Your task to perform on an android device: Go to Wikipedia Image 0: 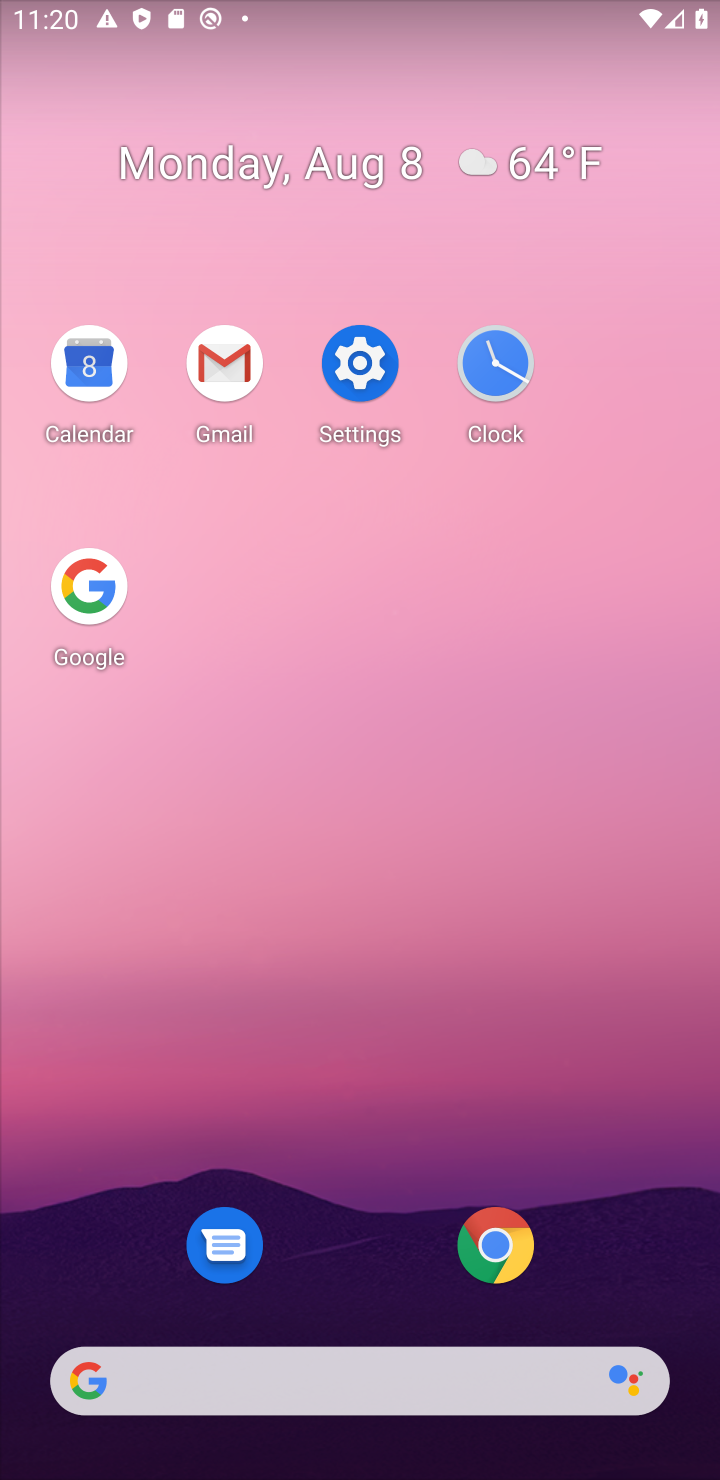
Step 0: click (494, 1241)
Your task to perform on an android device: Go to Wikipedia Image 1: 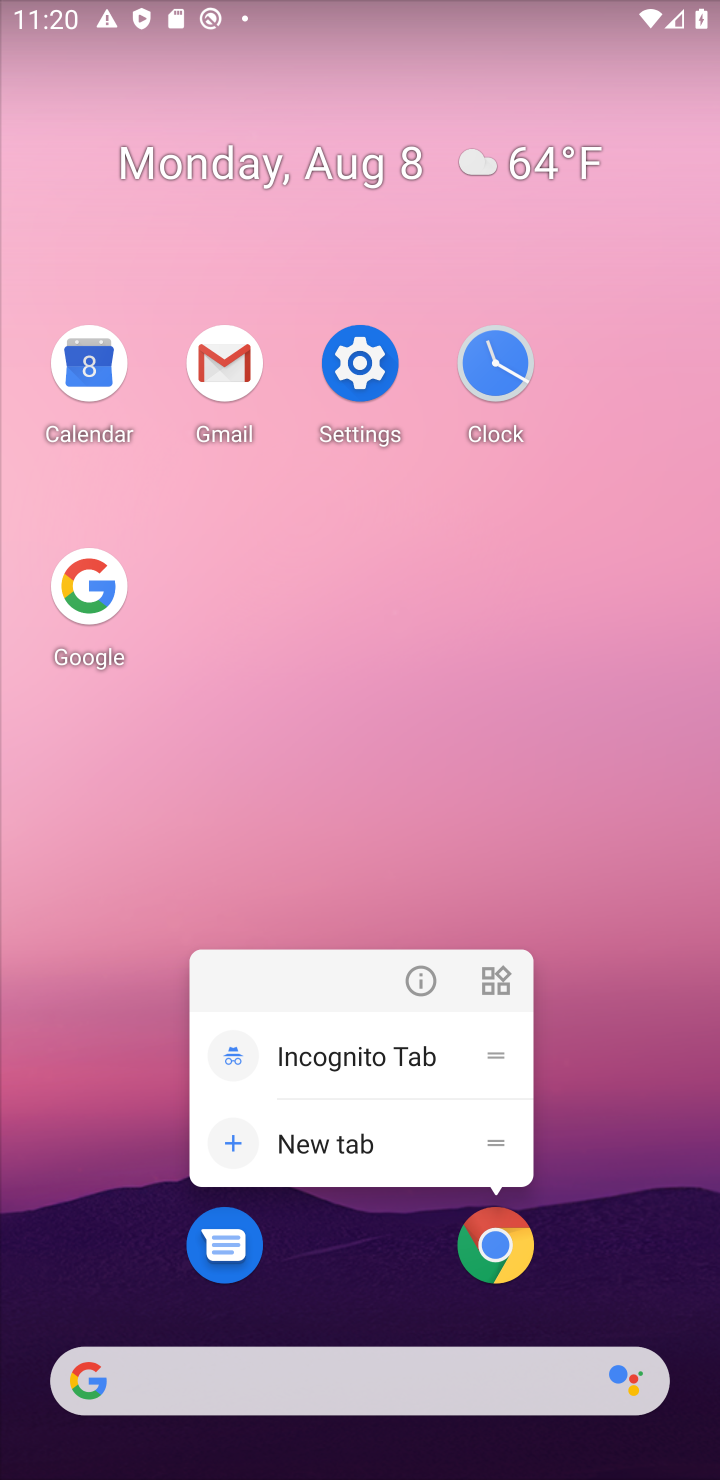
Step 1: click (494, 1241)
Your task to perform on an android device: Go to Wikipedia Image 2: 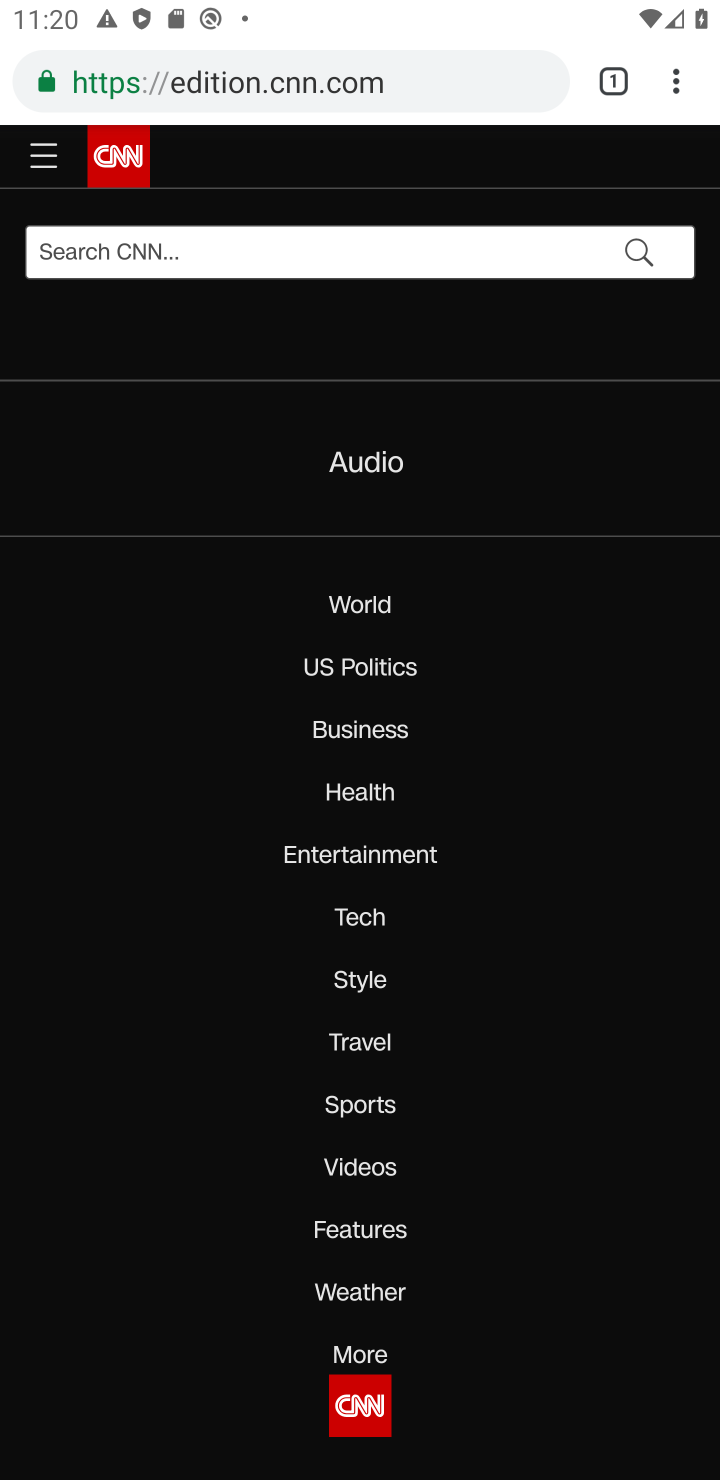
Step 2: click (606, 87)
Your task to perform on an android device: Go to Wikipedia Image 3: 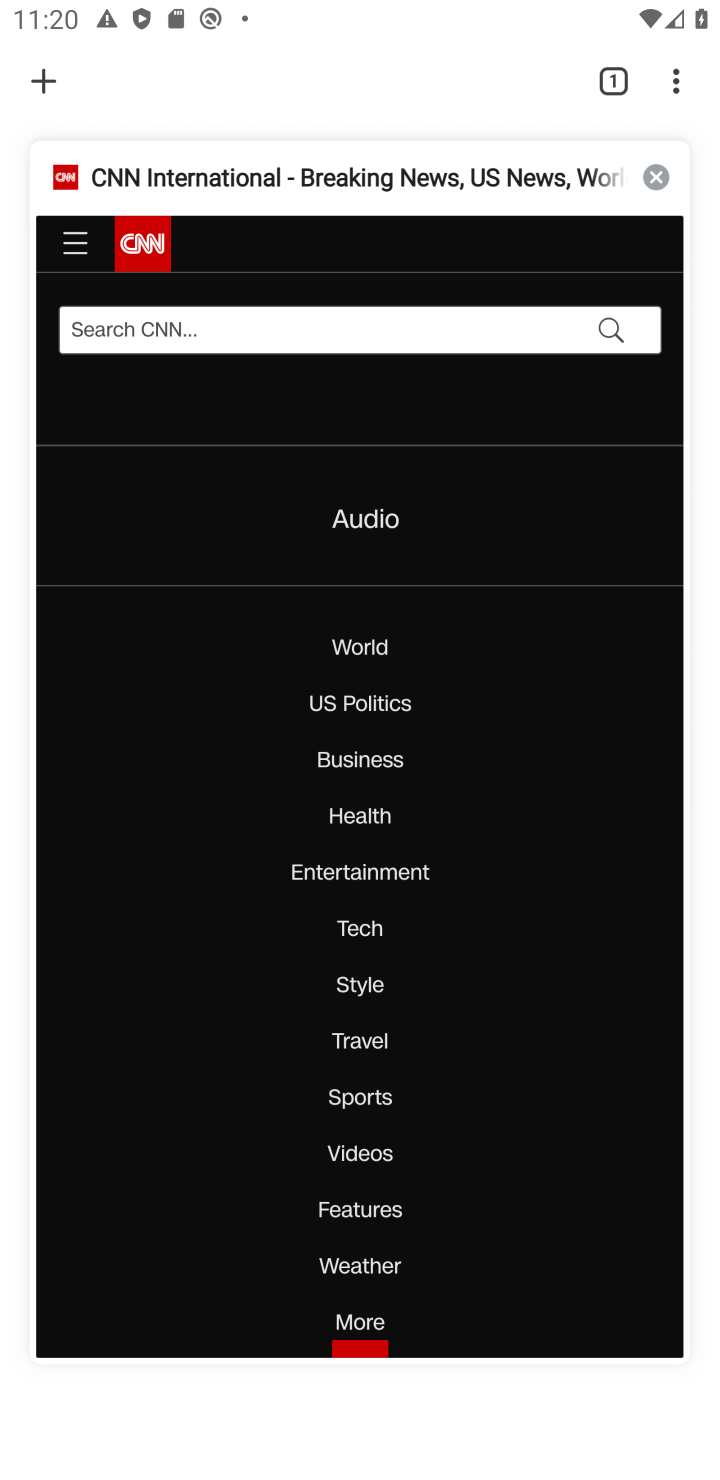
Step 3: click (40, 87)
Your task to perform on an android device: Go to Wikipedia Image 4: 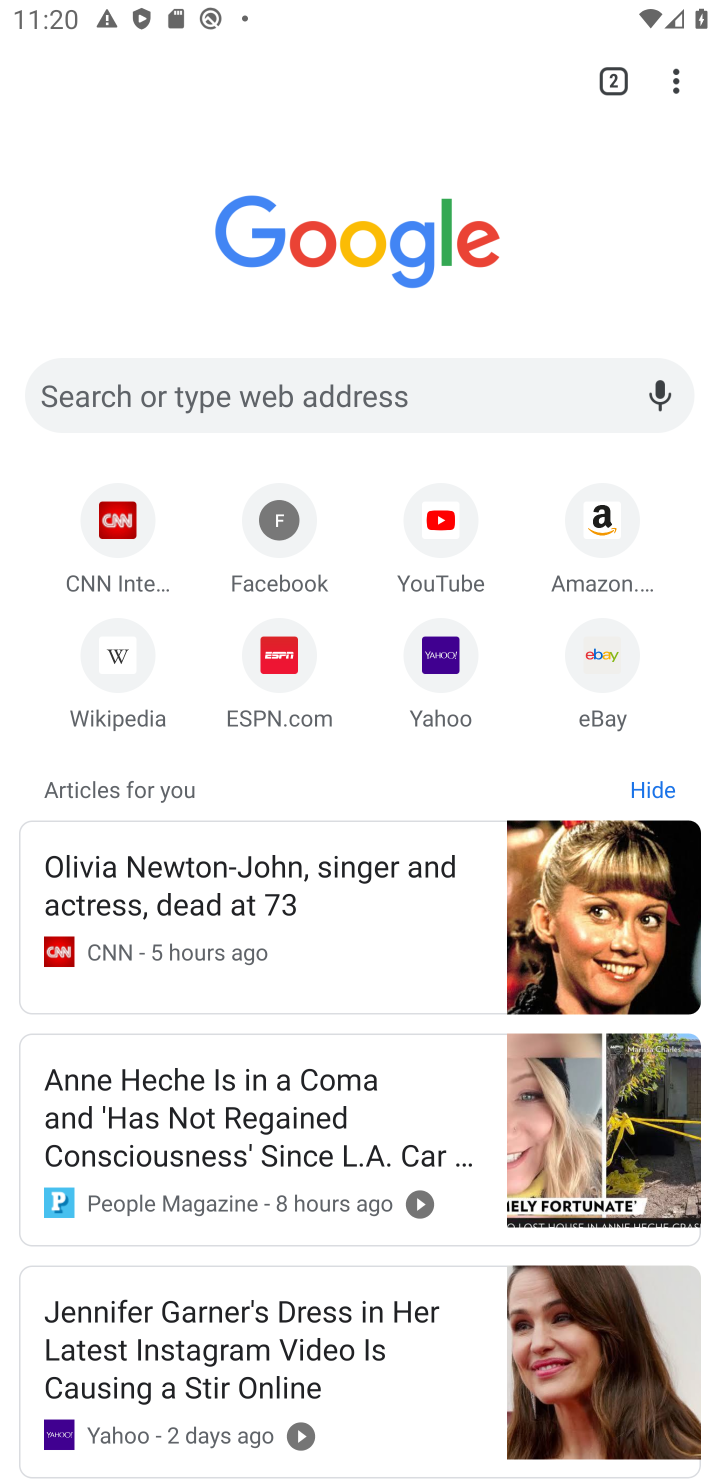
Step 4: click (126, 679)
Your task to perform on an android device: Go to Wikipedia Image 5: 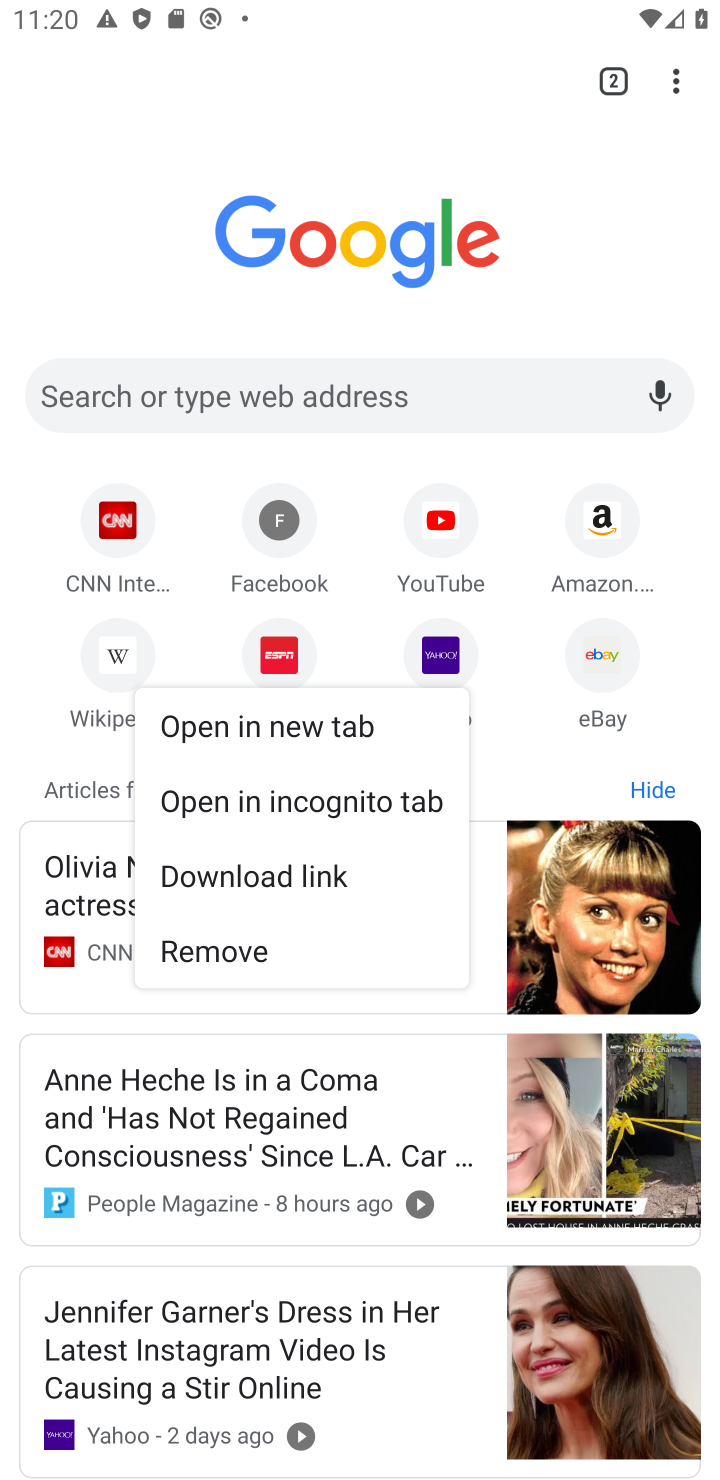
Step 5: click (130, 634)
Your task to perform on an android device: Go to Wikipedia Image 6: 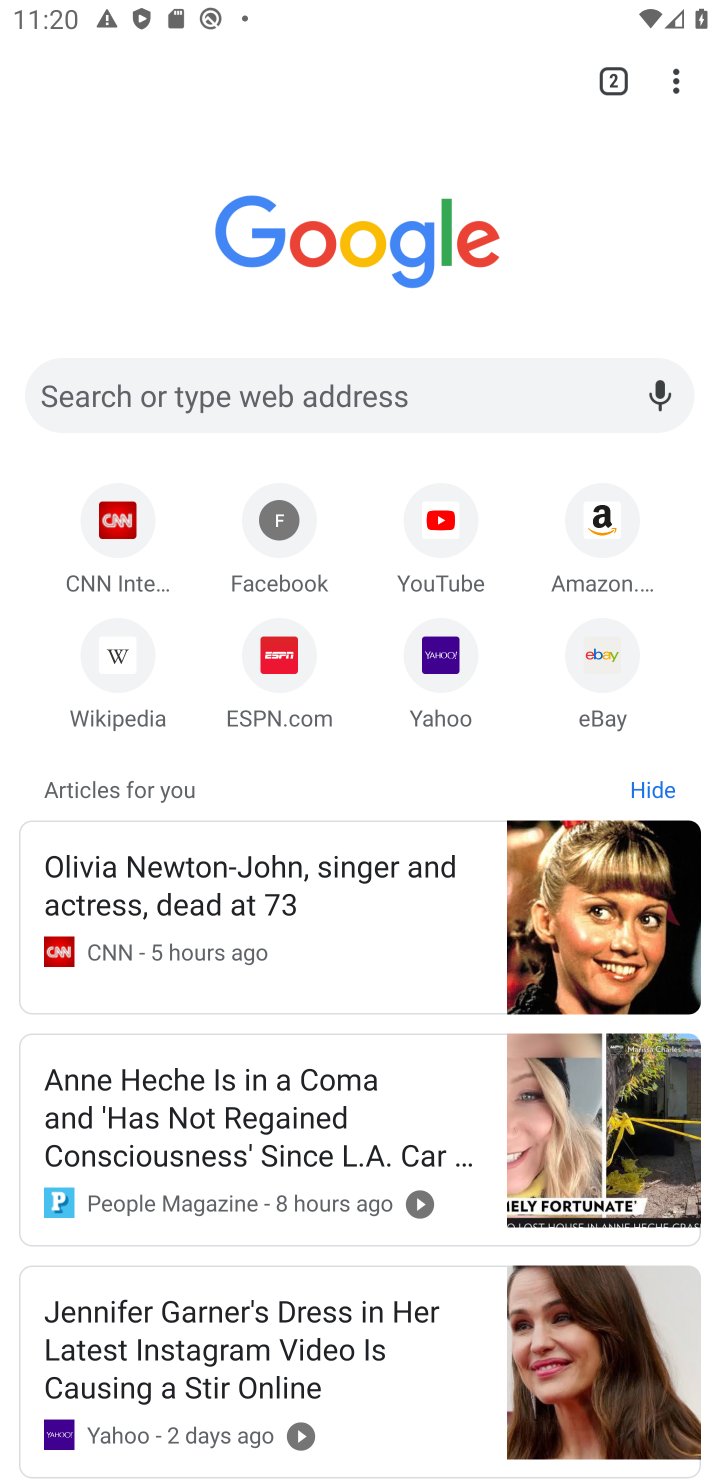
Step 6: click (120, 673)
Your task to perform on an android device: Go to Wikipedia Image 7: 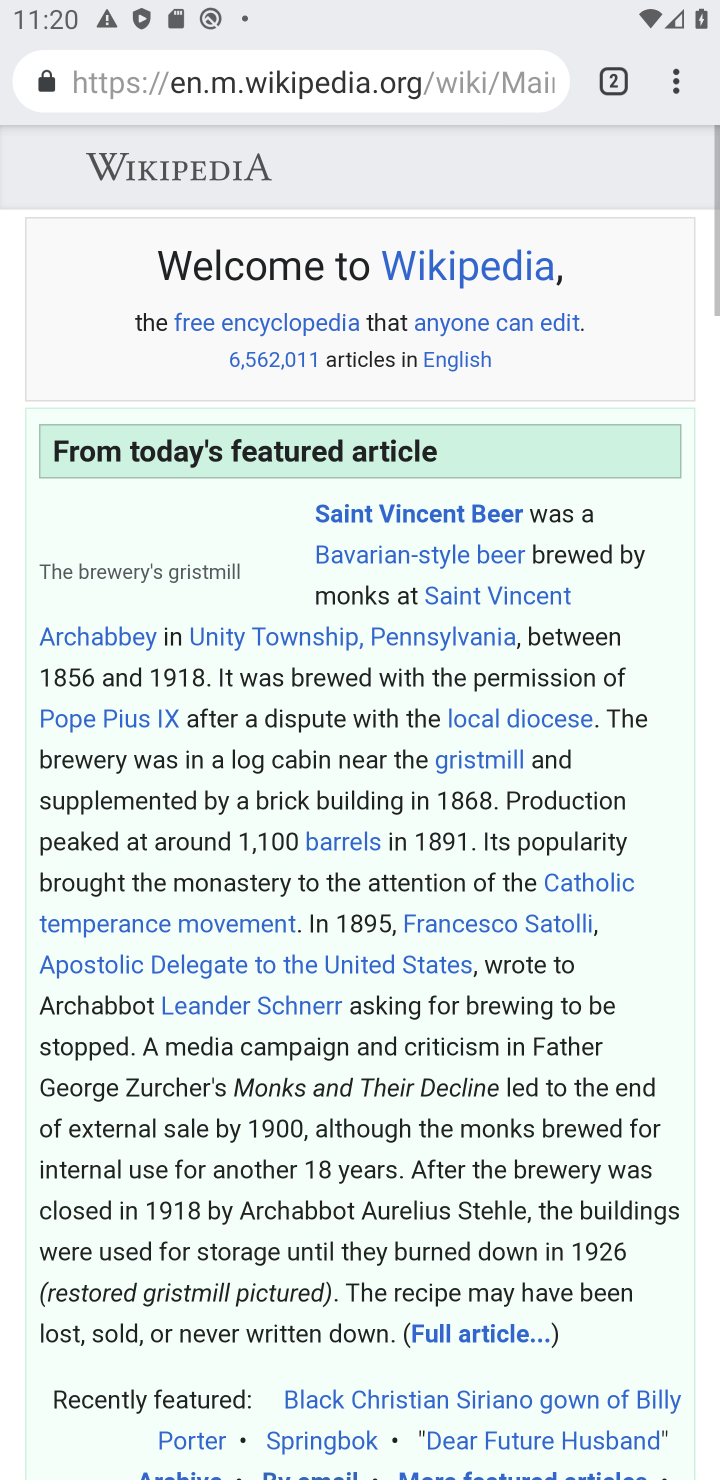
Step 7: task complete